Your task to perform on an android device: Is it going to rain this weekend? Image 0: 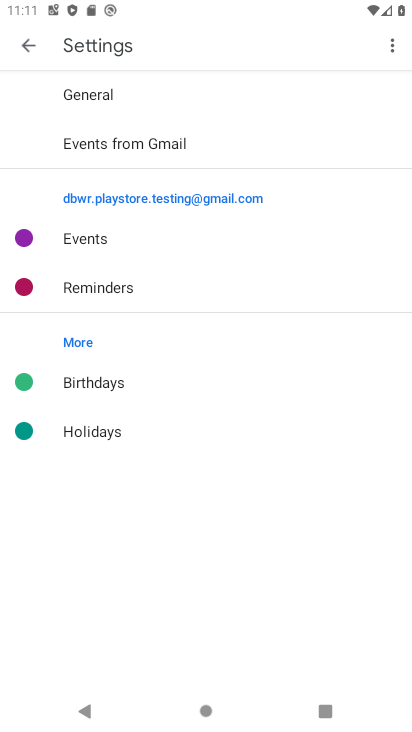
Step 0: press back button
Your task to perform on an android device: Is it going to rain this weekend? Image 1: 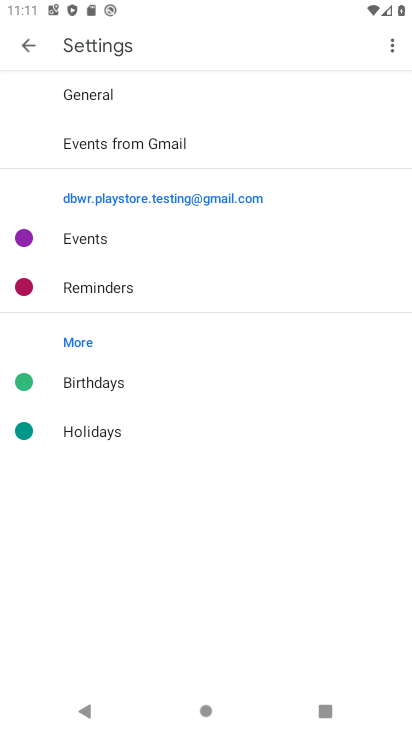
Step 1: press back button
Your task to perform on an android device: Is it going to rain this weekend? Image 2: 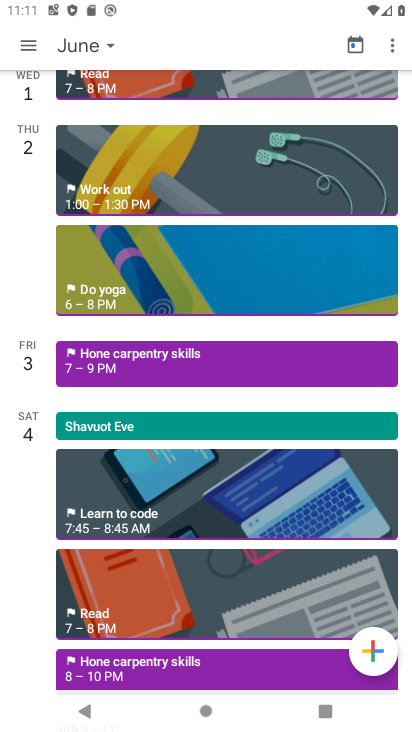
Step 2: press back button
Your task to perform on an android device: Is it going to rain this weekend? Image 3: 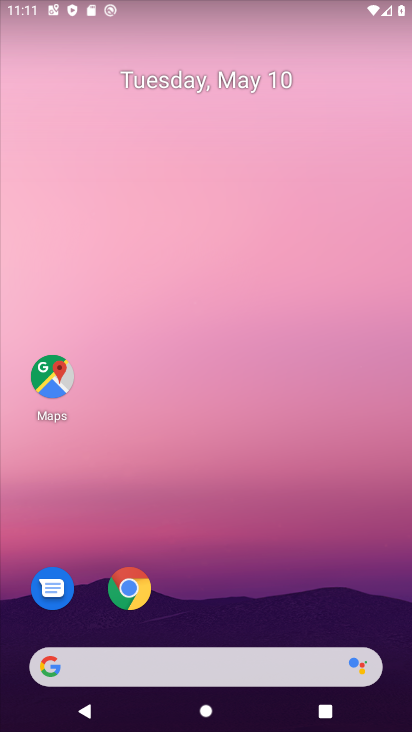
Step 3: drag from (300, 570) to (198, 111)
Your task to perform on an android device: Is it going to rain this weekend? Image 4: 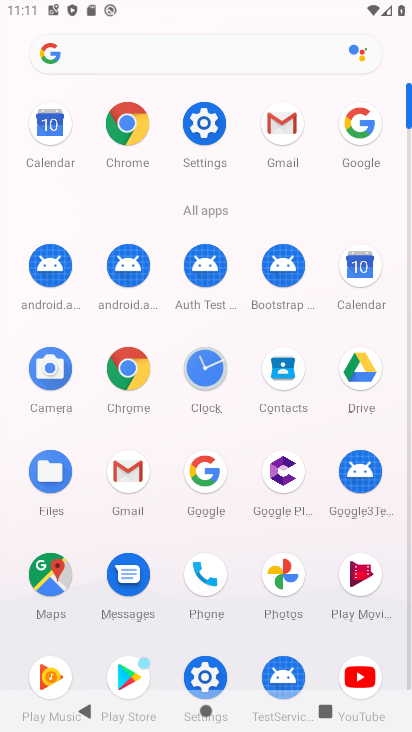
Step 4: press back button
Your task to perform on an android device: Is it going to rain this weekend? Image 5: 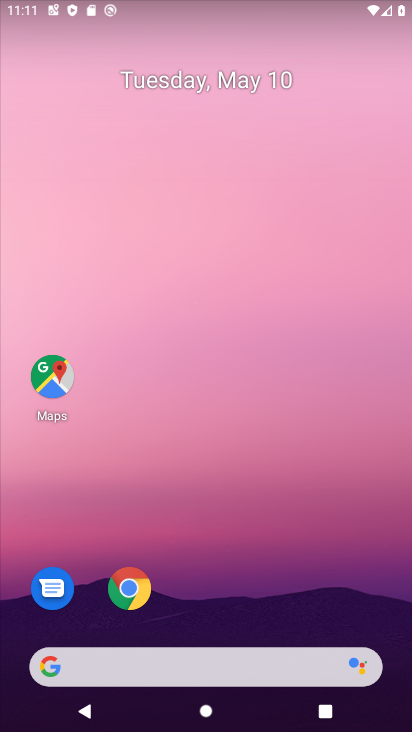
Step 5: drag from (6, 241) to (410, 428)
Your task to perform on an android device: Is it going to rain this weekend? Image 6: 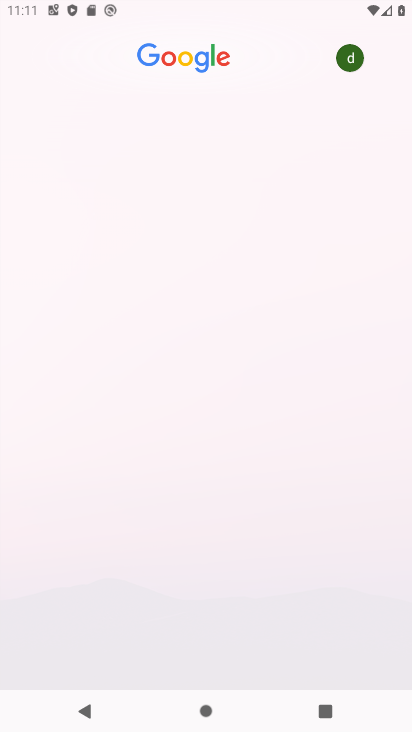
Step 6: drag from (92, 264) to (410, 381)
Your task to perform on an android device: Is it going to rain this weekend? Image 7: 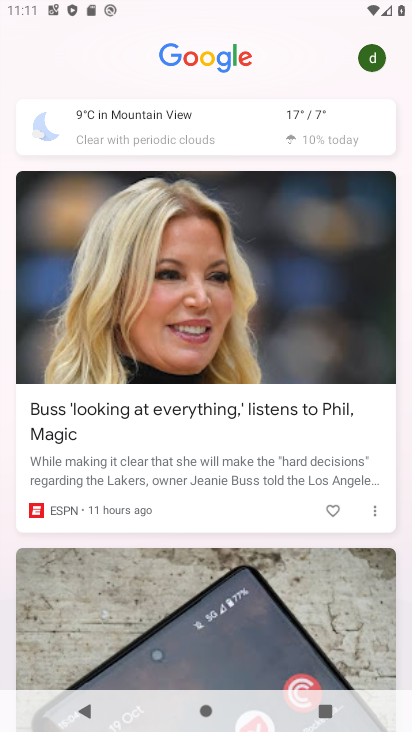
Step 7: click (238, 125)
Your task to perform on an android device: Is it going to rain this weekend? Image 8: 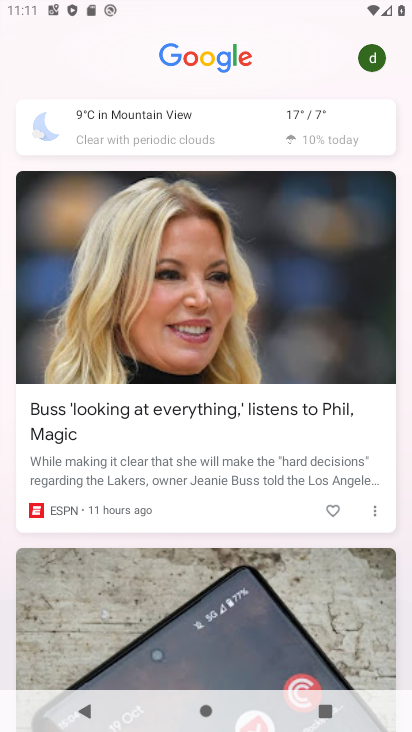
Step 8: click (240, 125)
Your task to perform on an android device: Is it going to rain this weekend? Image 9: 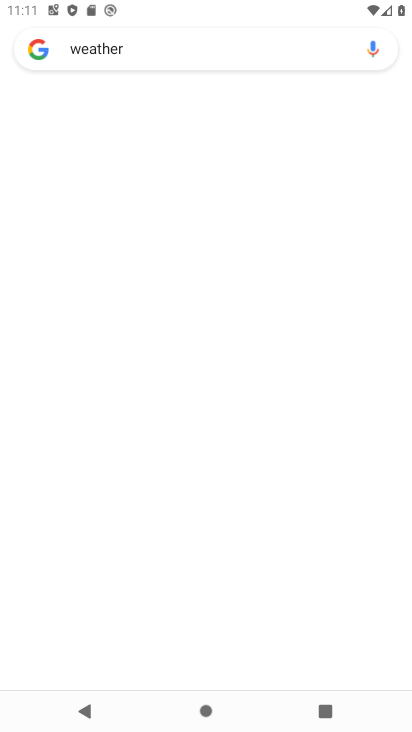
Step 9: click (240, 125)
Your task to perform on an android device: Is it going to rain this weekend? Image 10: 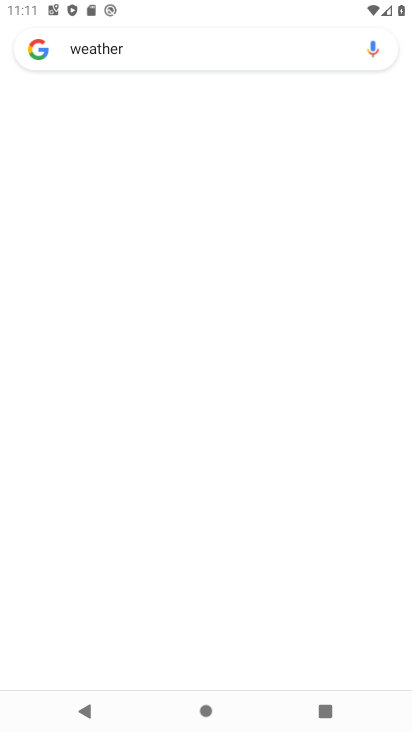
Step 10: click (240, 124)
Your task to perform on an android device: Is it going to rain this weekend? Image 11: 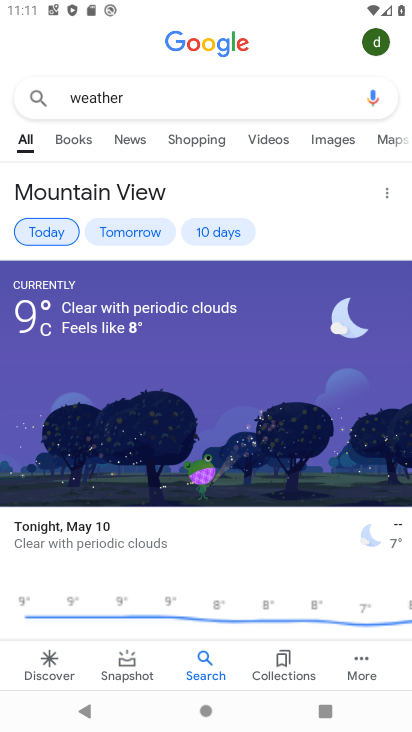
Step 11: click (209, 234)
Your task to perform on an android device: Is it going to rain this weekend? Image 12: 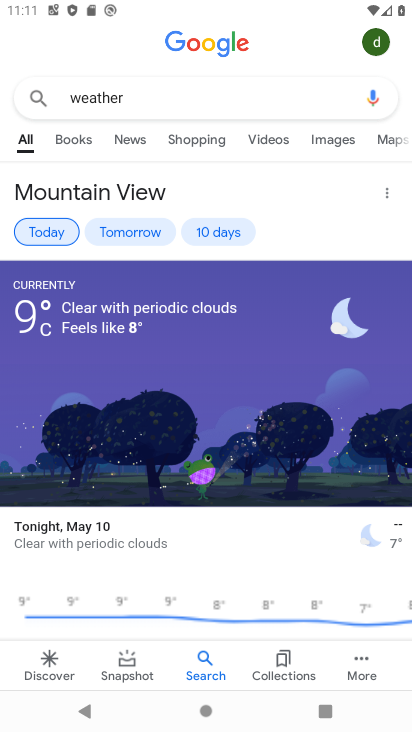
Step 12: click (209, 234)
Your task to perform on an android device: Is it going to rain this weekend? Image 13: 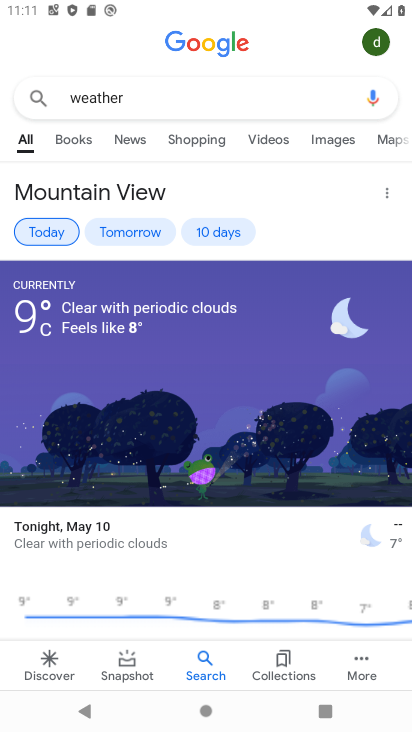
Step 13: click (209, 234)
Your task to perform on an android device: Is it going to rain this weekend? Image 14: 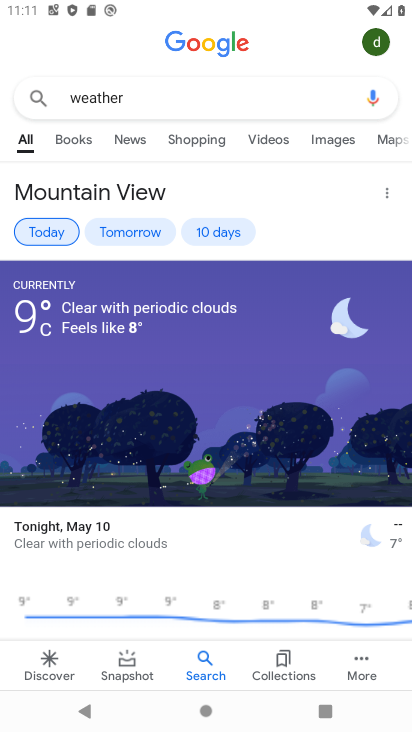
Step 14: click (209, 234)
Your task to perform on an android device: Is it going to rain this weekend? Image 15: 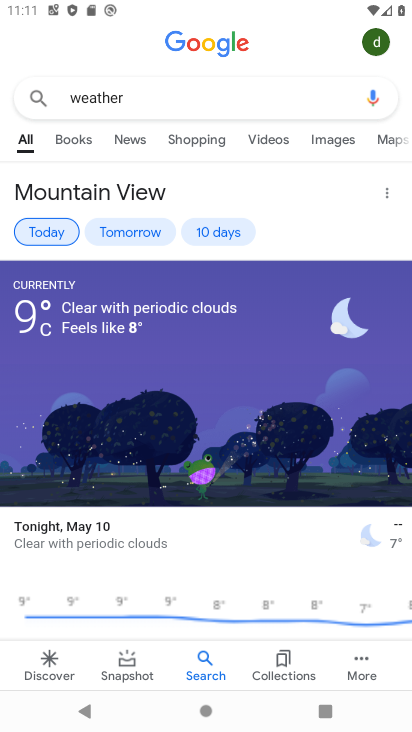
Step 15: click (209, 234)
Your task to perform on an android device: Is it going to rain this weekend? Image 16: 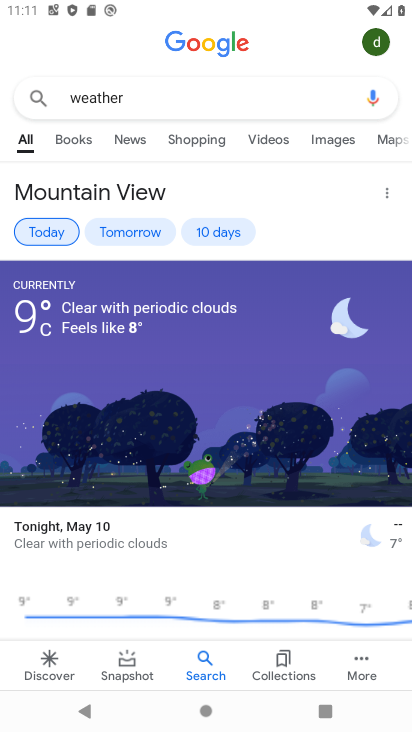
Step 16: click (209, 234)
Your task to perform on an android device: Is it going to rain this weekend? Image 17: 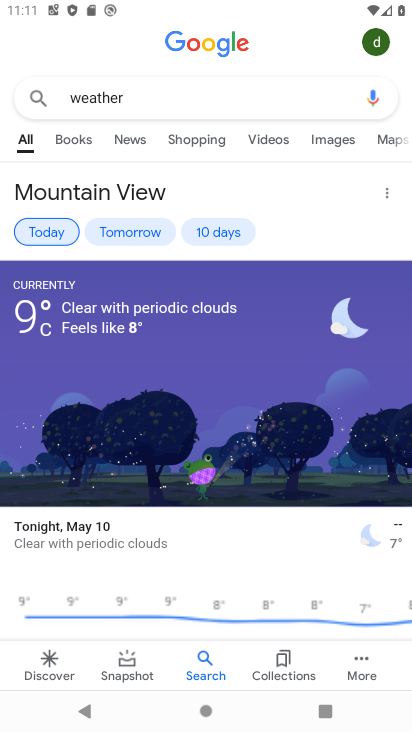
Step 17: click (209, 234)
Your task to perform on an android device: Is it going to rain this weekend? Image 18: 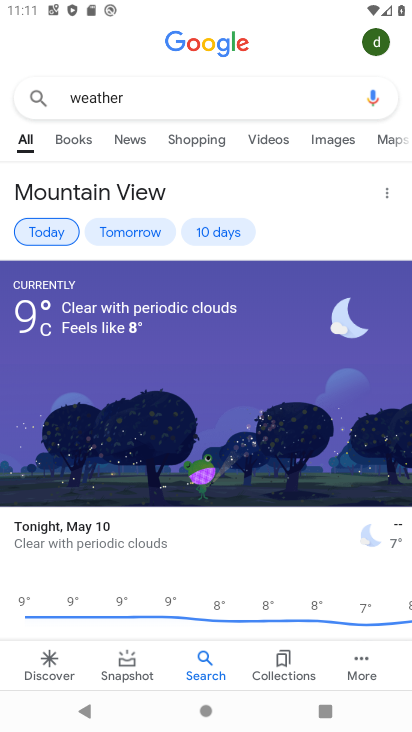
Step 18: click (209, 234)
Your task to perform on an android device: Is it going to rain this weekend? Image 19: 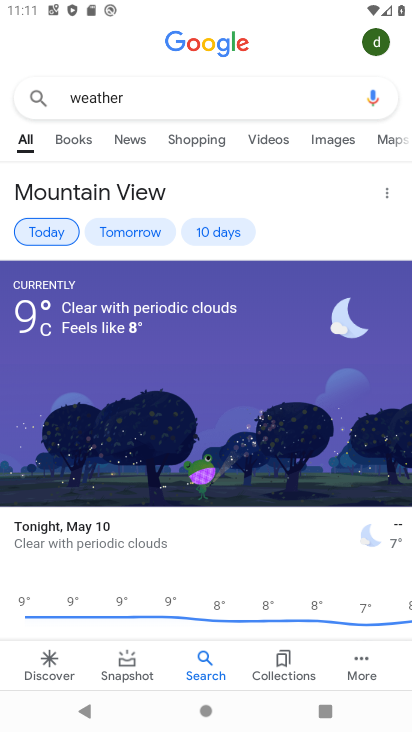
Step 19: click (209, 234)
Your task to perform on an android device: Is it going to rain this weekend? Image 20: 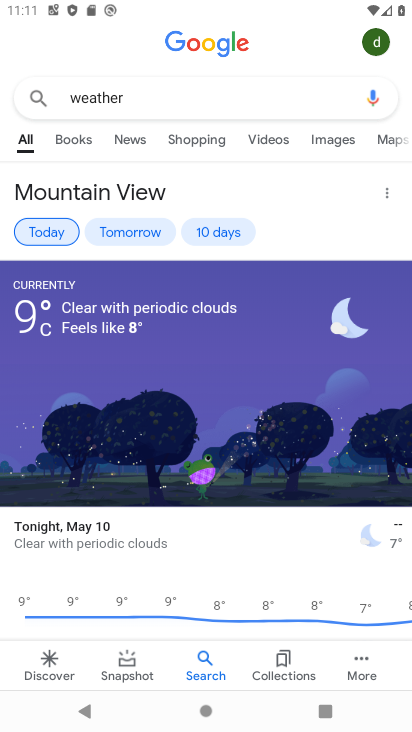
Step 20: click (210, 234)
Your task to perform on an android device: Is it going to rain this weekend? Image 21: 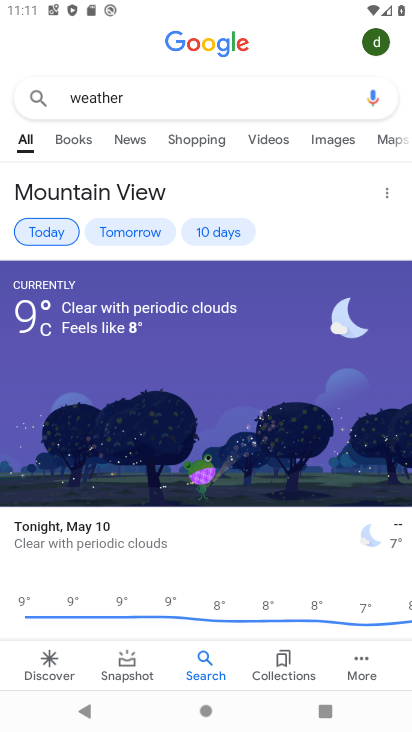
Step 21: click (213, 227)
Your task to perform on an android device: Is it going to rain this weekend? Image 22: 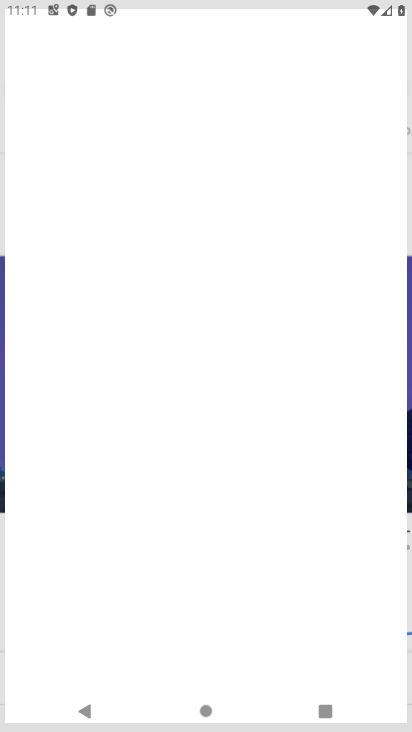
Step 22: click (213, 226)
Your task to perform on an android device: Is it going to rain this weekend? Image 23: 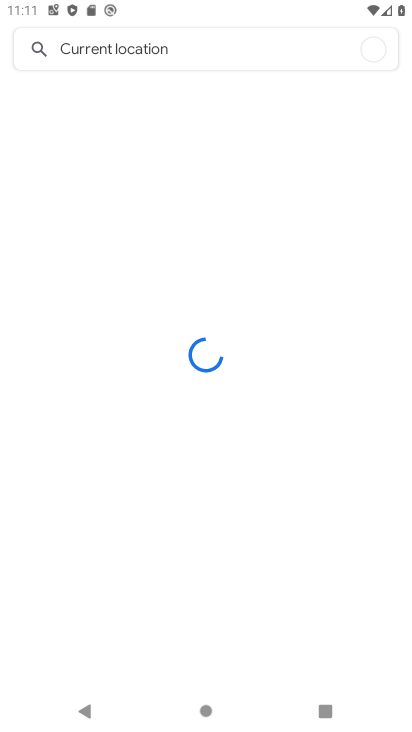
Step 23: click (202, 229)
Your task to perform on an android device: Is it going to rain this weekend? Image 24: 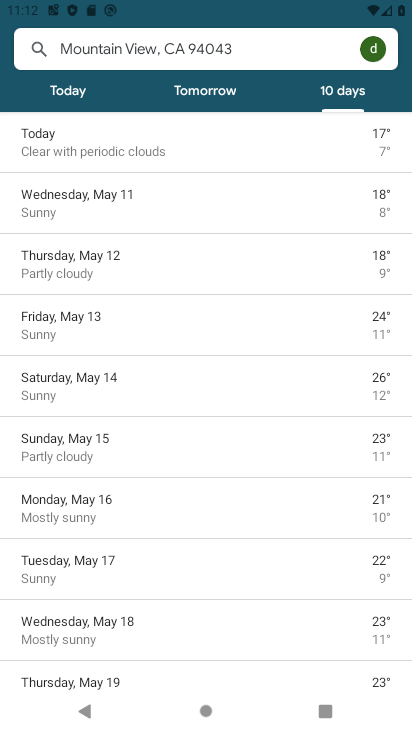
Step 24: task complete